Your task to perform on an android device: Open Amazon Image 0: 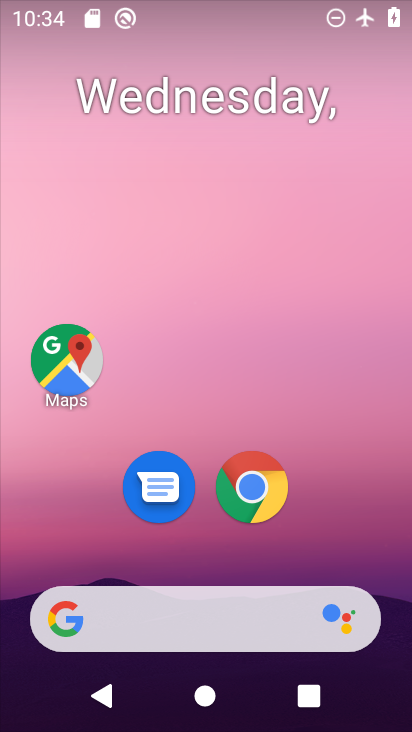
Step 0: click (254, 486)
Your task to perform on an android device: Open Amazon Image 1: 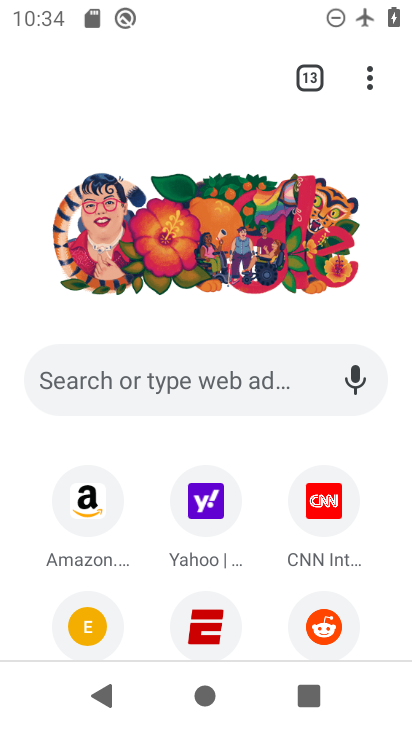
Step 1: click (73, 494)
Your task to perform on an android device: Open Amazon Image 2: 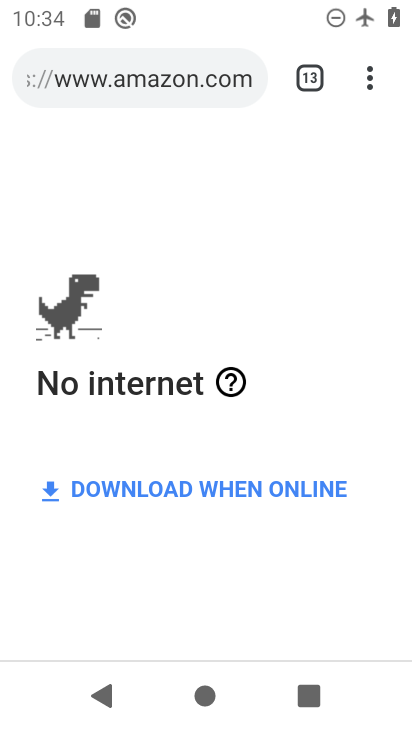
Step 2: task complete